Your task to perform on an android device: Open ESPN.com Image 0: 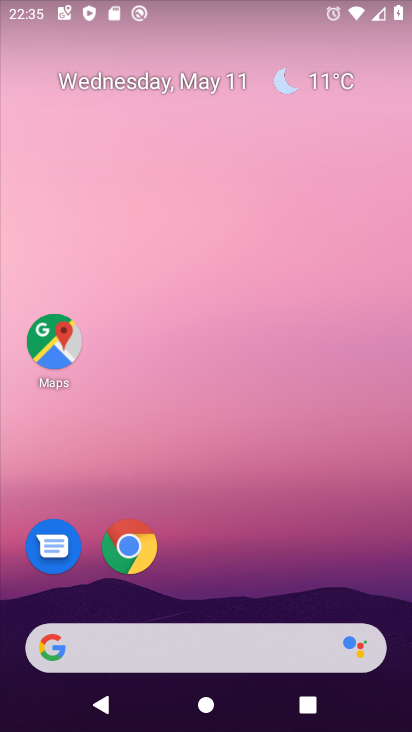
Step 0: click (127, 541)
Your task to perform on an android device: Open ESPN.com Image 1: 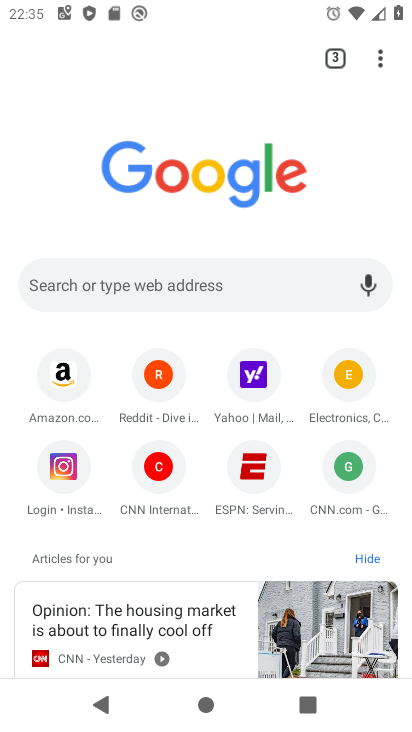
Step 1: click (127, 283)
Your task to perform on an android device: Open ESPN.com Image 2: 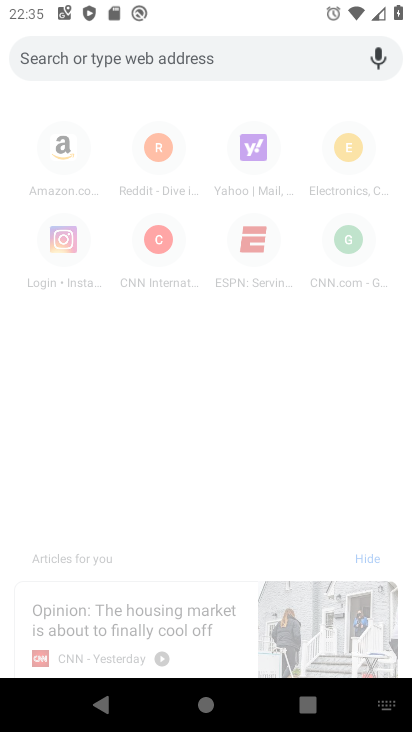
Step 2: type "espn.com"
Your task to perform on an android device: Open ESPN.com Image 3: 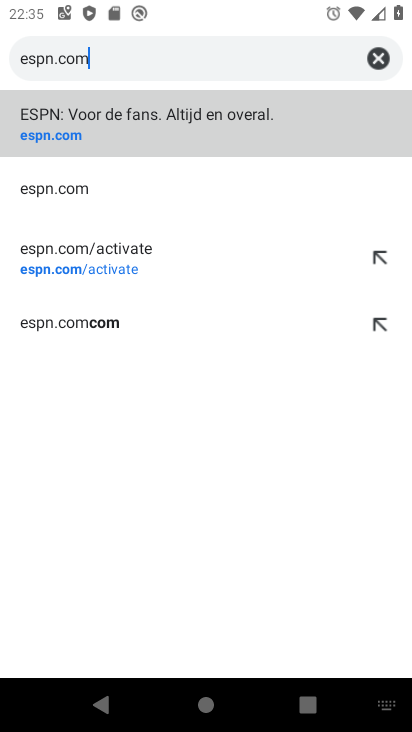
Step 3: click (57, 114)
Your task to perform on an android device: Open ESPN.com Image 4: 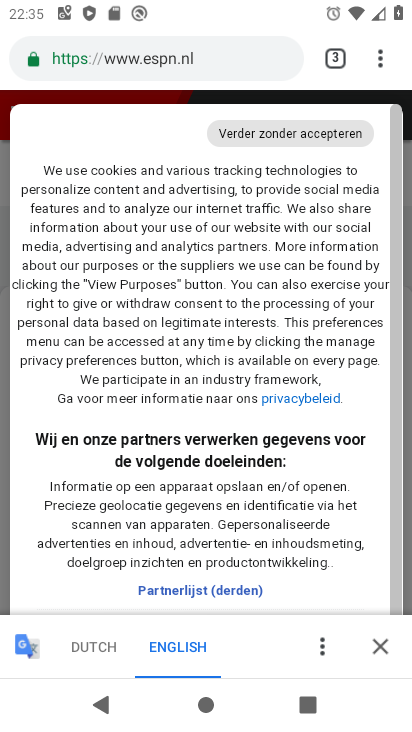
Step 4: task complete